Your task to perform on an android device: Open the calendar and show me this week's events? Image 0: 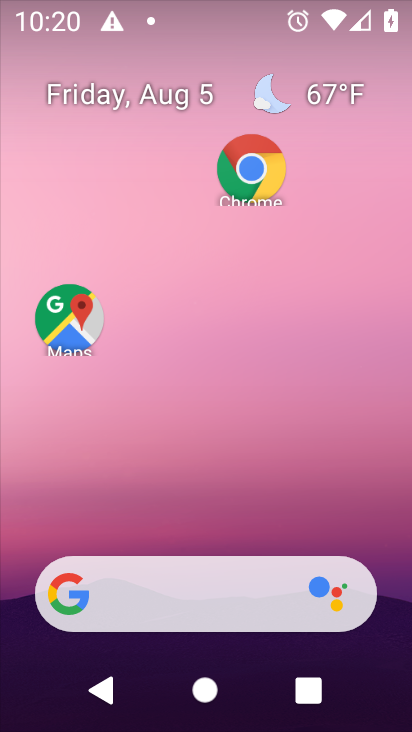
Step 0: drag from (184, 519) to (184, 71)
Your task to perform on an android device: Open the calendar and show me this week's events? Image 1: 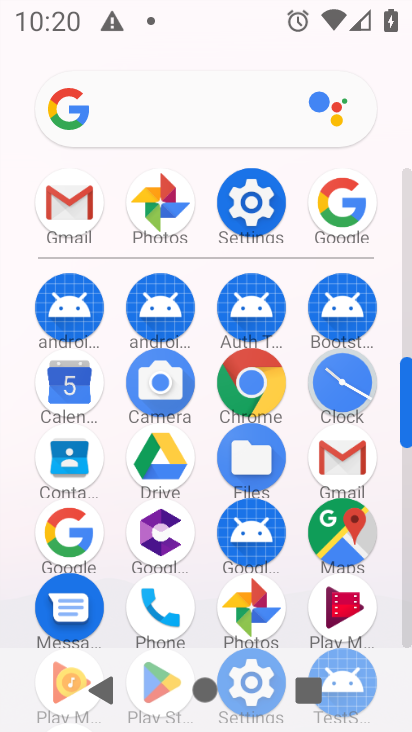
Step 1: click (87, 385)
Your task to perform on an android device: Open the calendar and show me this week's events? Image 2: 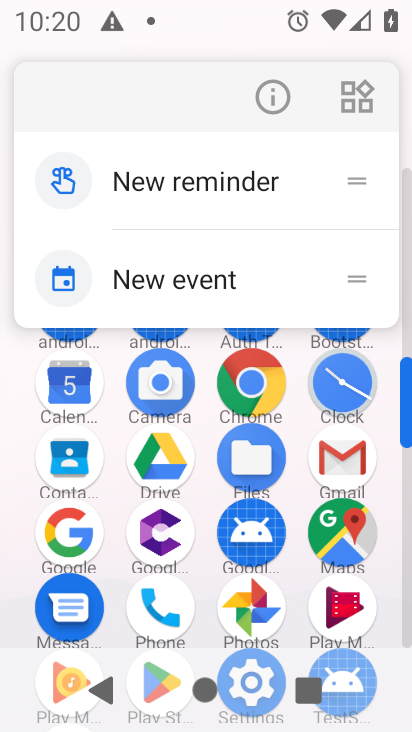
Step 2: click (87, 385)
Your task to perform on an android device: Open the calendar and show me this week's events? Image 3: 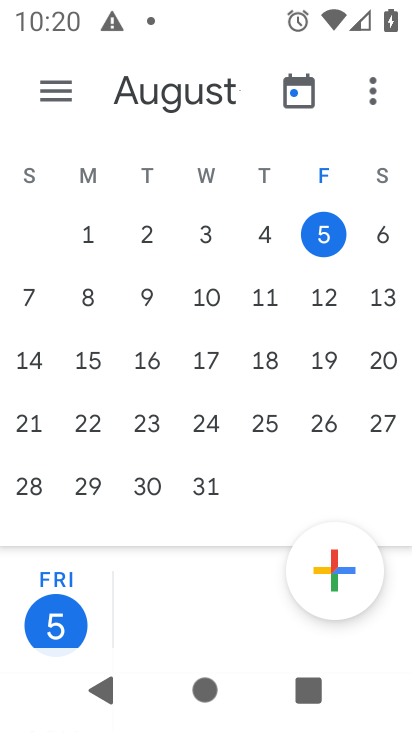
Step 3: click (364, 225)
Your task to perform on an android device: Open the calendar and show me this week's events? Image 4: 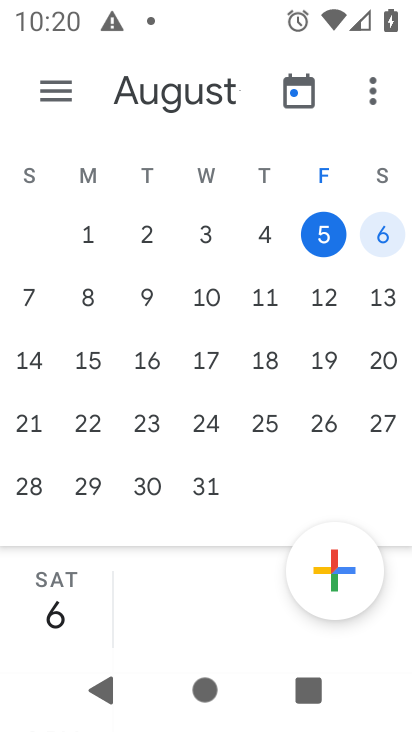
Step 4: drag from (236, 562) to (226, 151)
Your task to perform on an android device: Open the calendar and show me this week's events? Image 5: 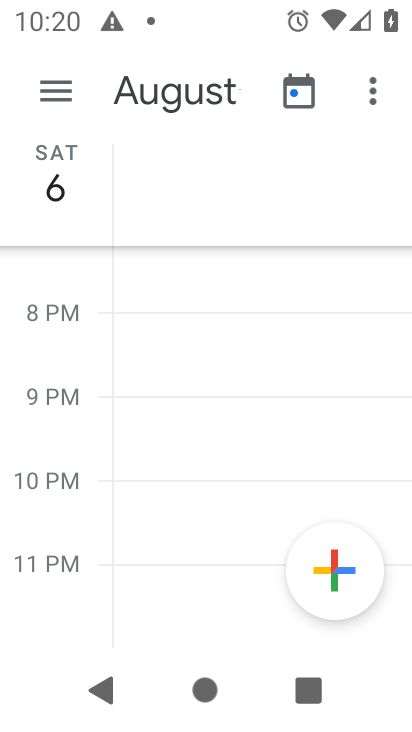
Step 5: drag from (226, 243) to (226, 470)
Your task to perform on an android device: Open the calendar and show me this week's events? Image 6: 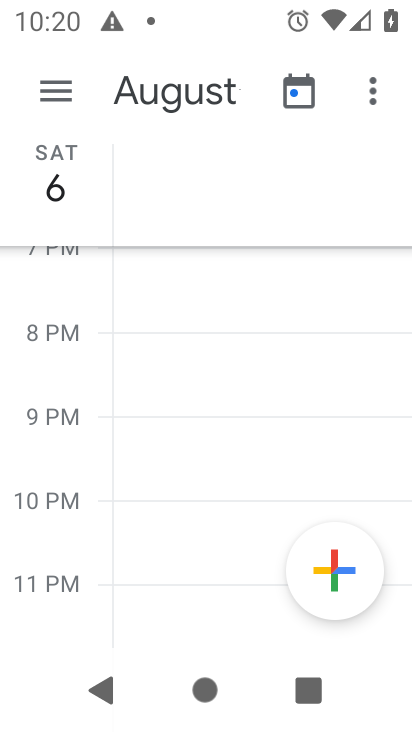
Step 6: click (60, 78)
Your task to perform on an android device: Open the calendar and show me this week's events? Image 7: 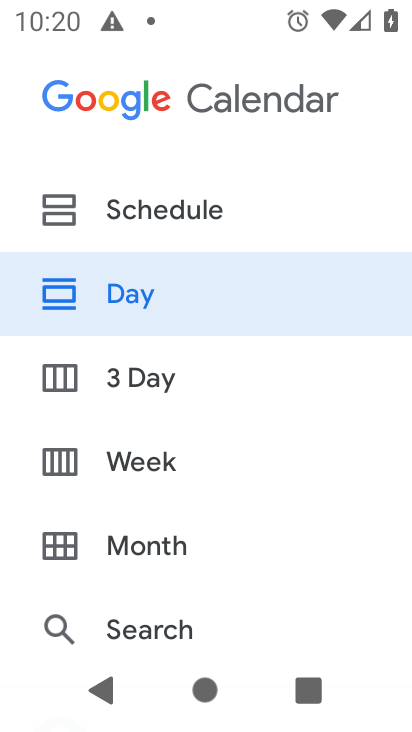
Step 7: click (140, 200)
Your task to perform on an android device: Open the calendar and show me this week's events? Image 8: 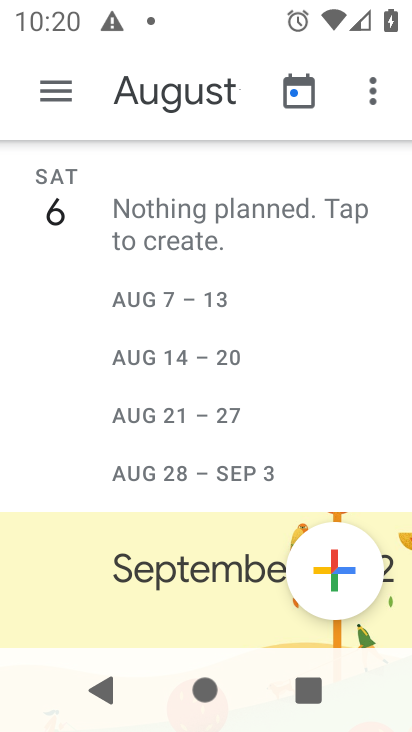
Step 8: task complete